Your task to perform on an android device: change your default location settings in chrome Image 0: 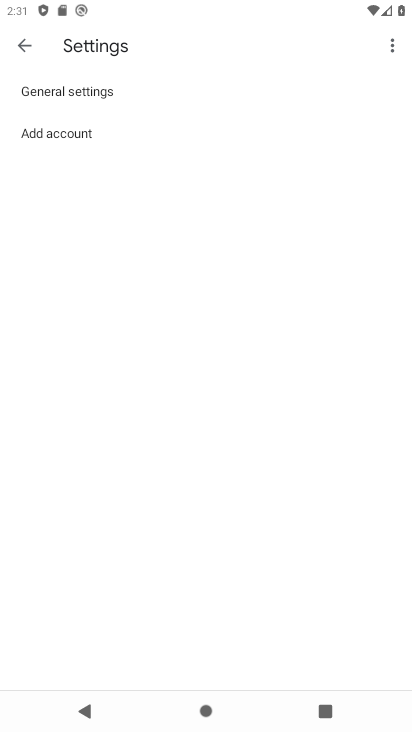
Step 0: press home button
Your task to perform on an android device: change your default location settings in chrome Image 1: 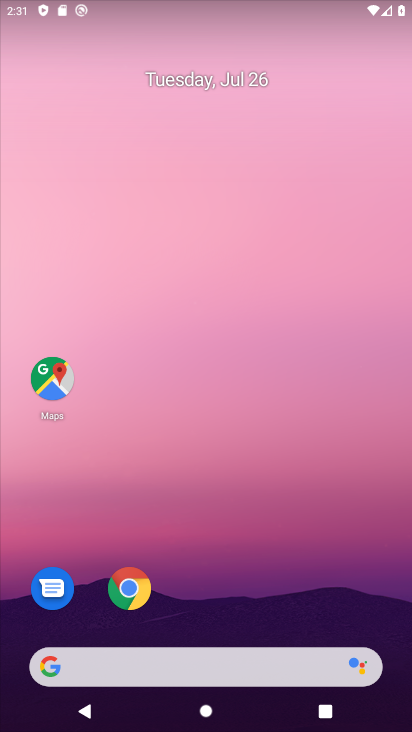
Step 1: drag from (306, 618) to (261, 17)
Your task to perform on an android device: change your default location settings in chrome Image 2: 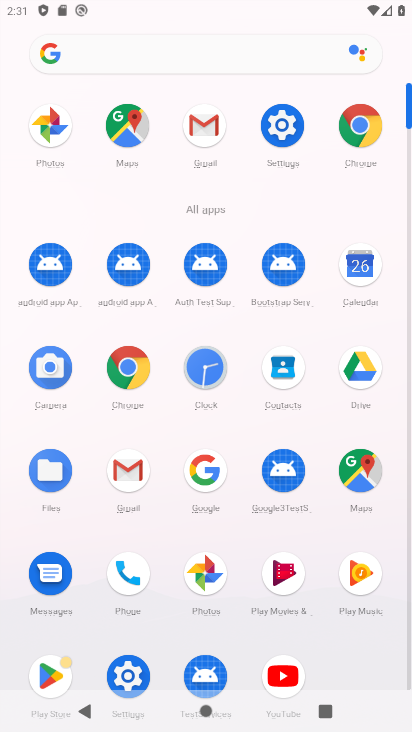
Step 2: click (363, 133)
Your task to perform on an android device: change your default location settings in chrome Image 3: 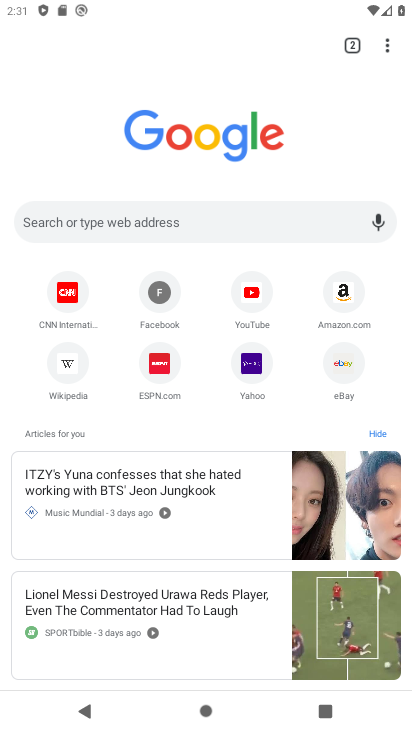
Step 3: click (394, 40)
Your task to perform on an android device: change your default location settings in chrome Image 4: 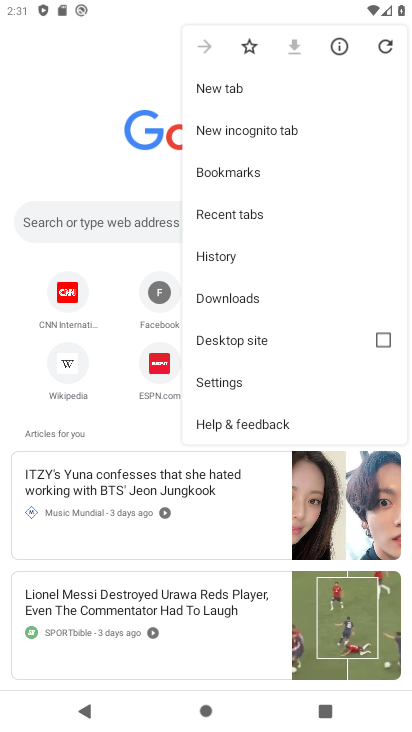
Step 4: click (231, 375)
Your task to perform on an android device: change your default location settings in chrome Image 5: 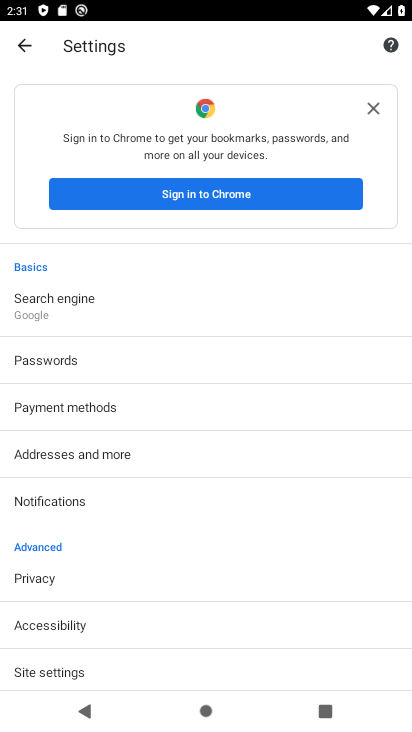
Step 5: click (206, 669)
Your task to perform on an android device: change your default location settings in chrome Image 6: 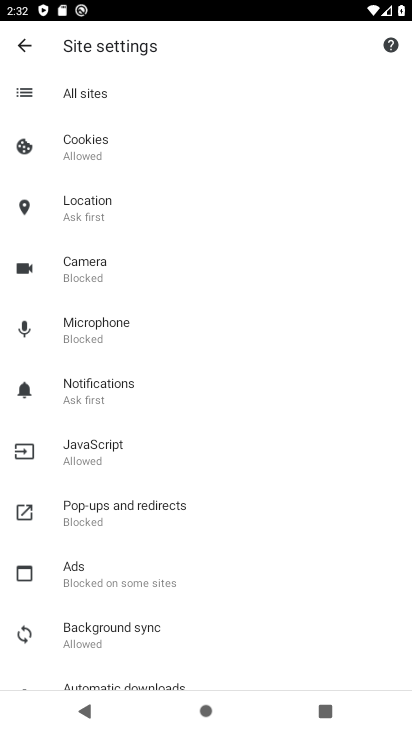
Step 6: click (138, 194)
Your task to perform on an android device: change your default location settings in chrome Image 7: 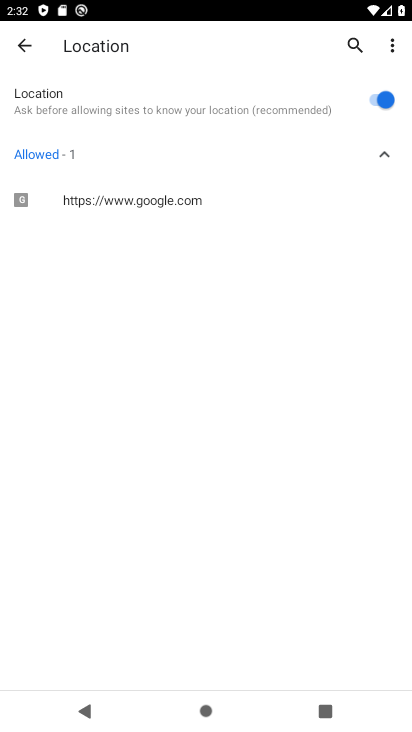
Step 7: click (394, 40)
Your task to perform on an android device: change your default location settings in chrome Image 8: 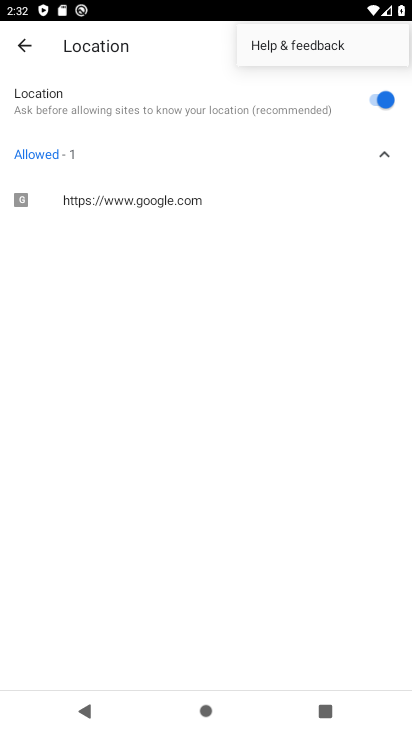
Step 8: task complete